Your task to perform on an android device: make emails show in primary in the gmail app Image 0: 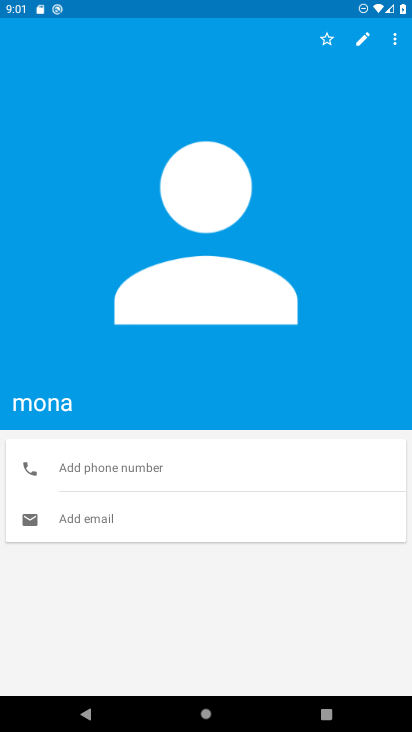
Step 0: press home button
Your task to perform on an android device: make emails show in primary in the gmail app Image 1: 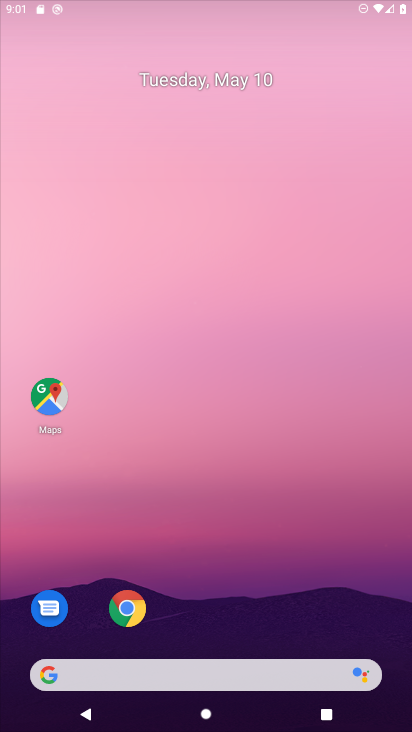
Step 1: drag from (353, 610) to (298, 58)
Your task to perform on an android device: make emails show in primary in the gmail app Image 2: 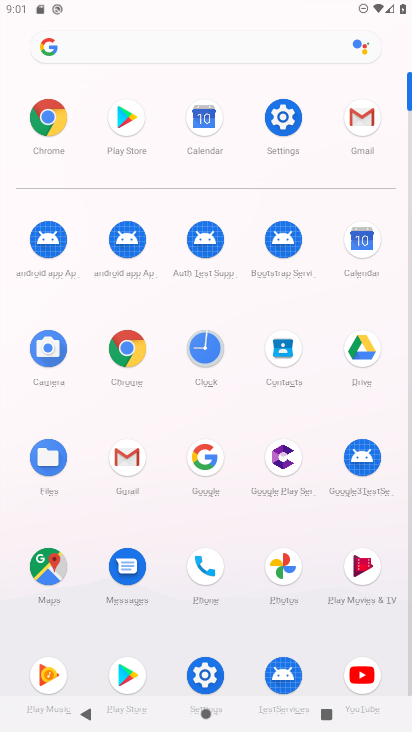
Step 2: click (119, 460)
Your task to perform on an android device: make emails show in primary in the gmail app Image 3: 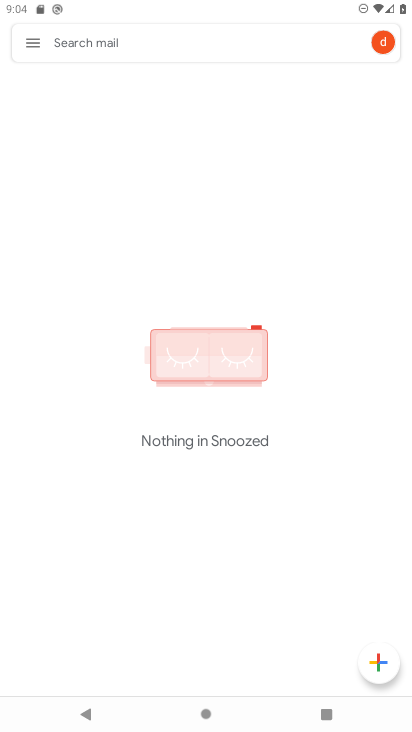
Step 3: task complete